Your task to perform on an android device: Open the Play Movies app and select the watchlist tab. Image 0: 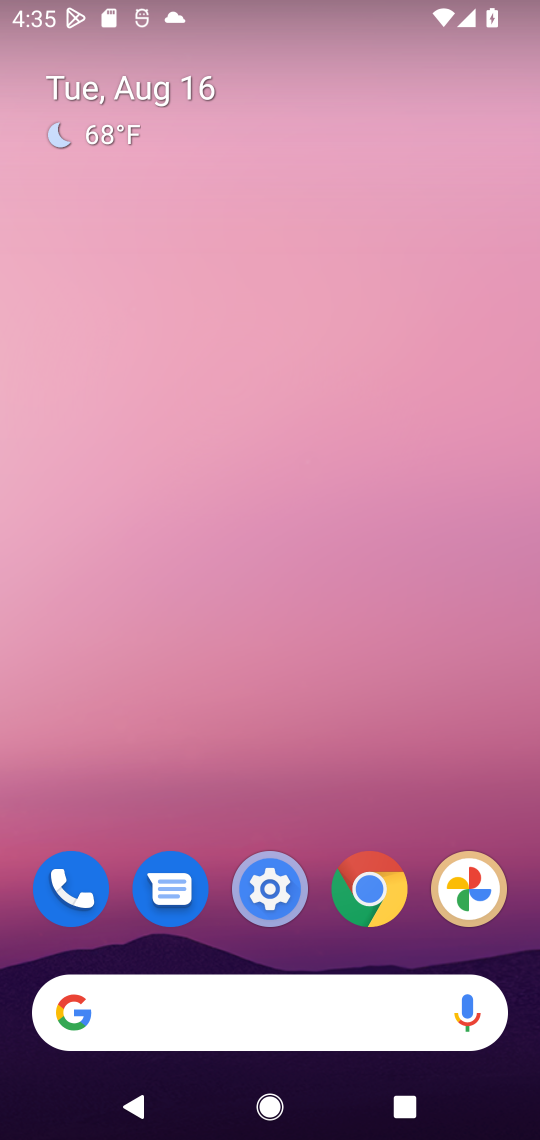
Step 0: drag from (199, 757) to (319, 230)
Your task to perform on an android device: Open the Play Movies app and select the watchlist tab. Image 1: 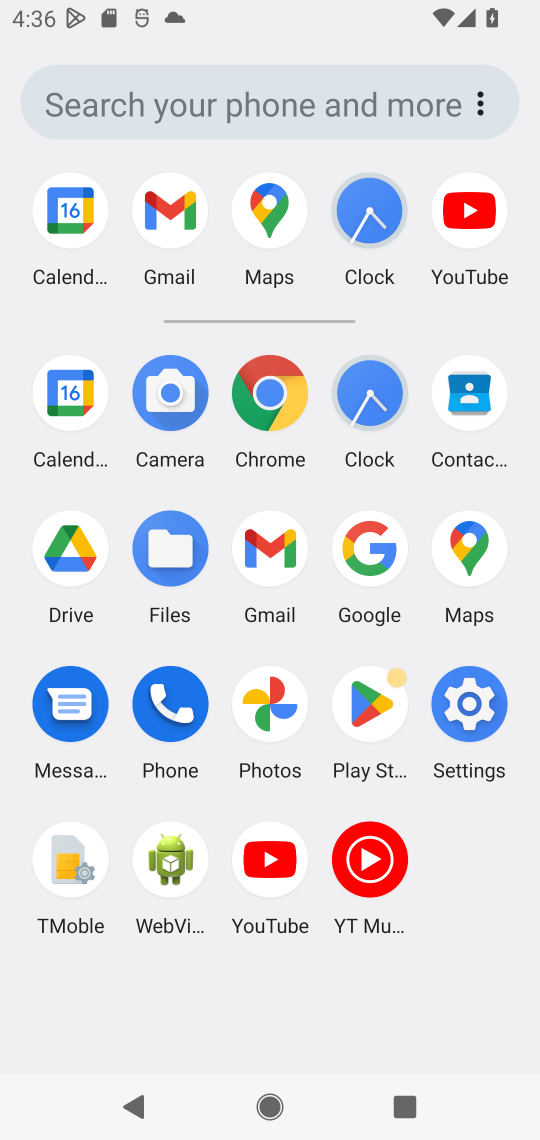
Step 1: click (277, 877)
Your task to perform on an android device: Open the Play Movies app and select the watchlist tab. Image 2: 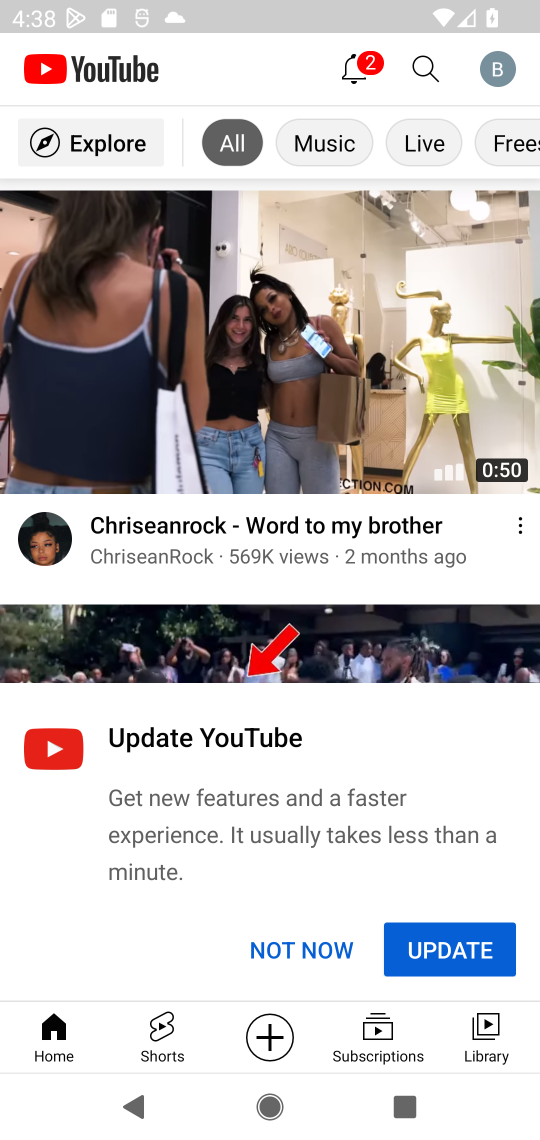
Step 2: click (371, 1049)
Your task to perform on an android device: Open the Play Movies app and select the watchlist tab. Image 3: 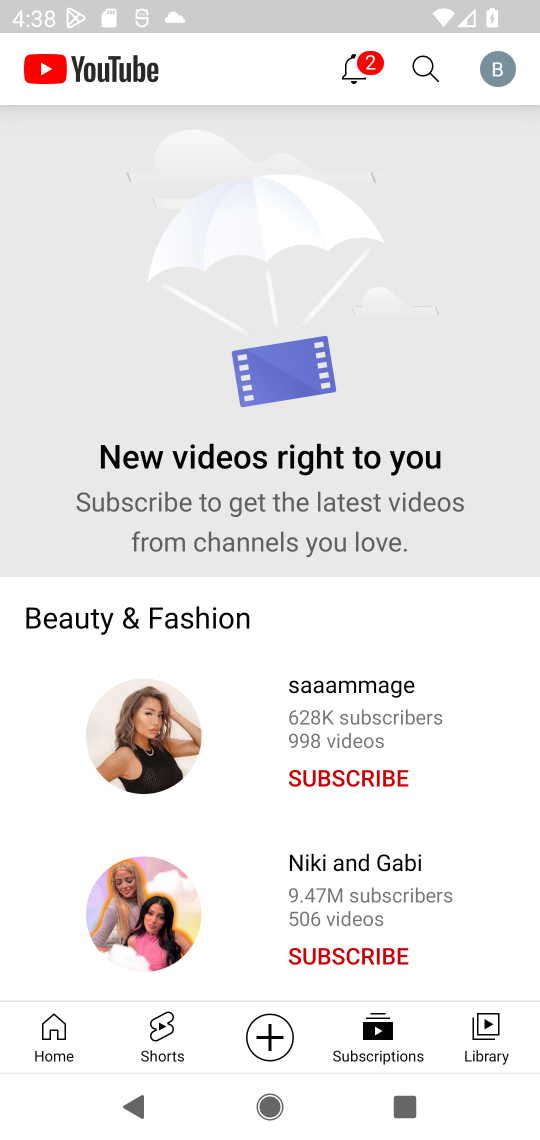
Step 3: task complete